Your task to perform on an android device: find snoozed emails in the gmail app Image 0: 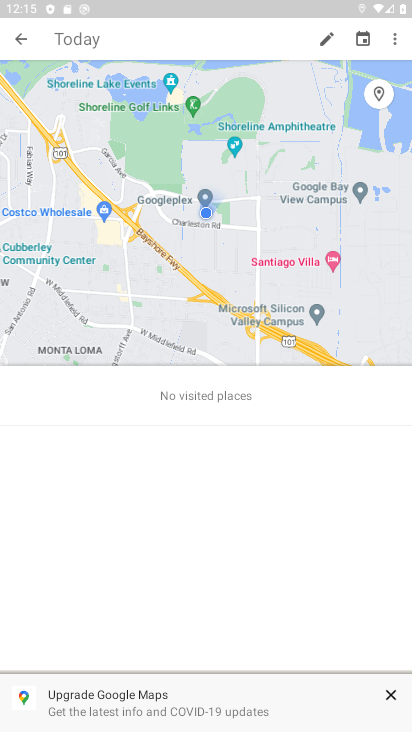
Step 0: press home button
Your task to perform on an android device: find snoozed emails in the gmail app Image 1: 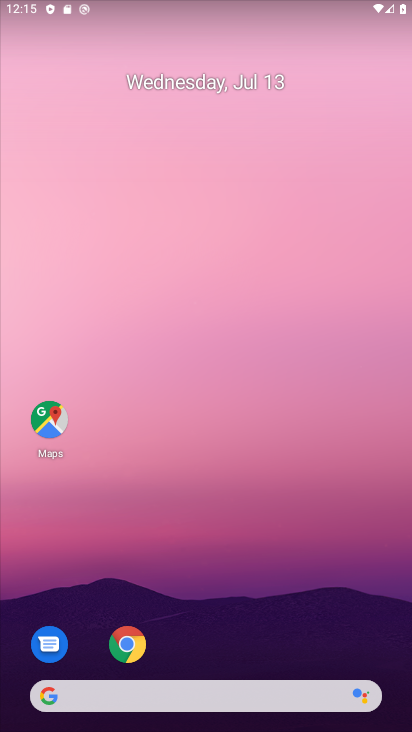
Step 1: drag from (311, 615) to (299, 124)
Your task to perform on an android device: find snoozed emails in the gmail app Image 2: 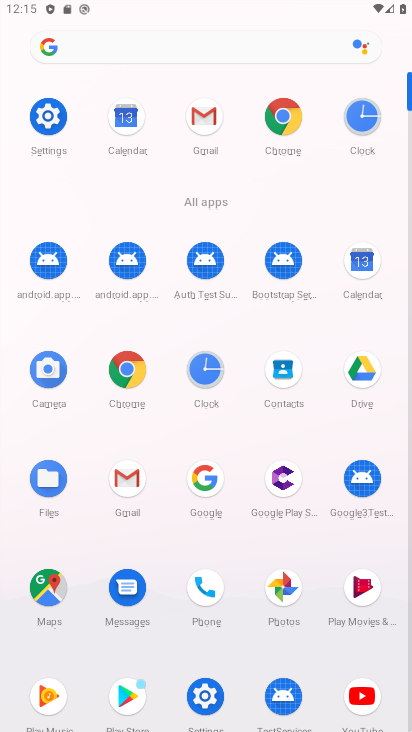
Step 2: click (213, 128)
Your task to perform on an android device: find snoozed emails in the gmail app Image 3: 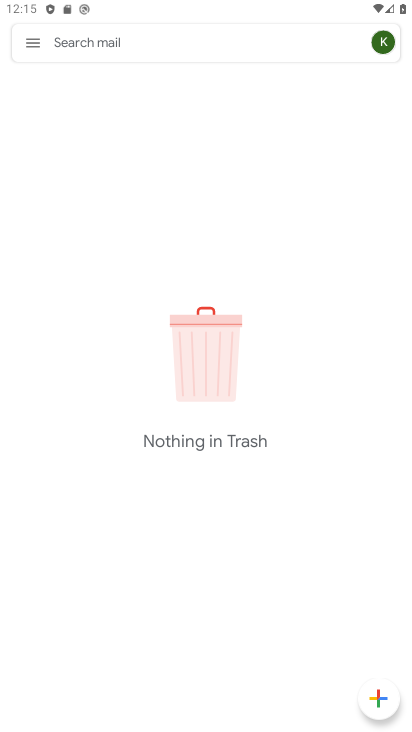
Step 3: click (19, 34)
Your task to perform on an android device: find snoozed emails in the gmail app Image 4: 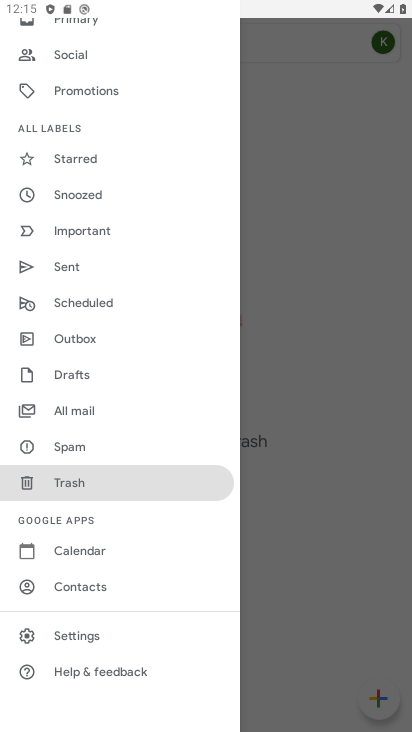
Step 4: click (95, 196)
Your task to perform on an android device: find snoozed emails in the gmail app Image 5: 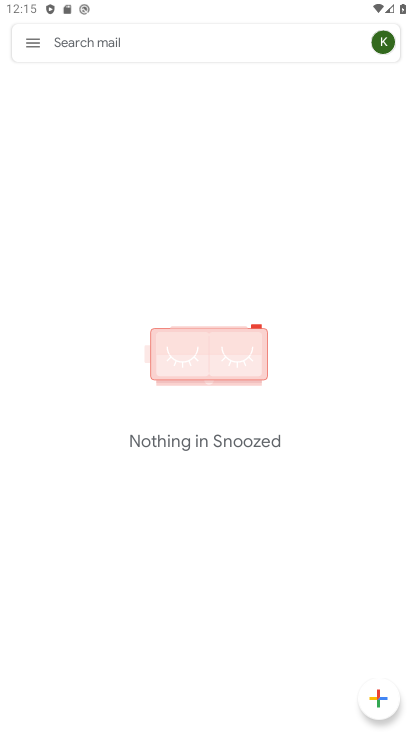
Step 5: task complete